Your task to perform on an android device: make emails show in primary in the gmail app Image 0: 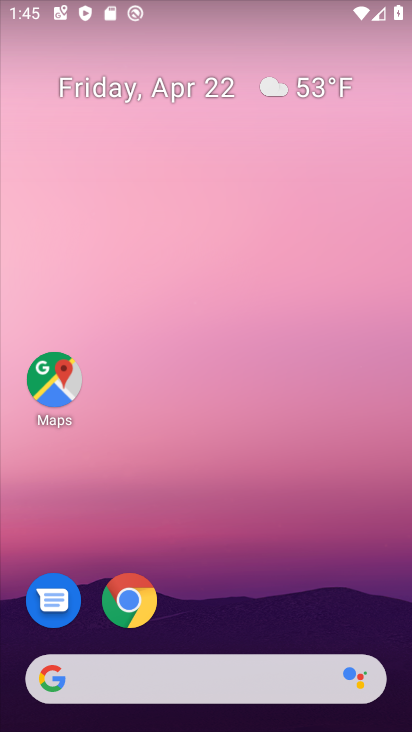
Step 0: drag from (213, 704) to (213, 78)
Your task to perform on an android device: make emails show in primary in the gmail app Image 1: 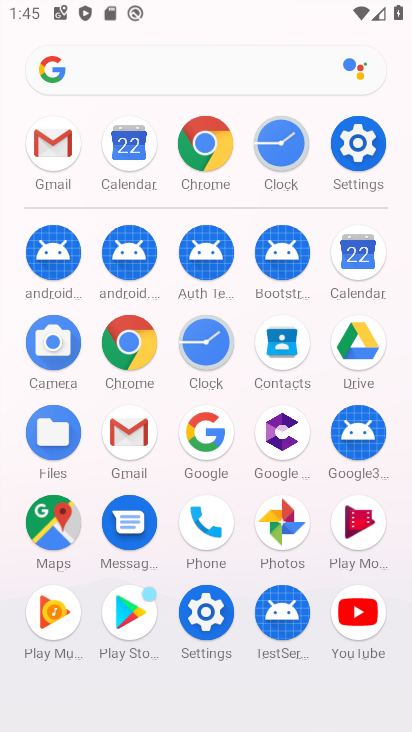
Step 1: click (52, 143)
Your task to perform on an android device: make emails show in primary in the gmail app Image 2: 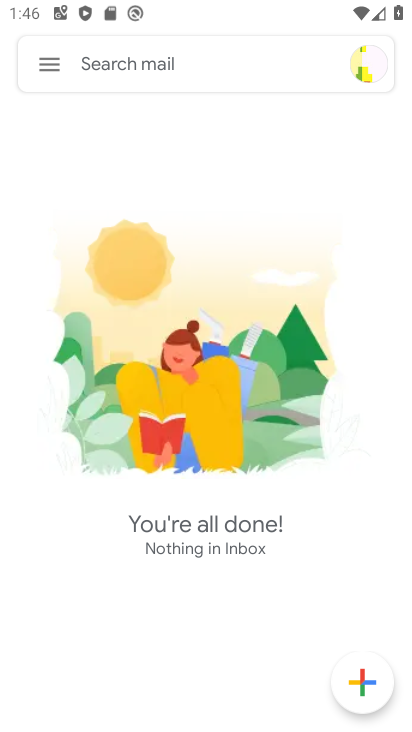
Step 2: click (52, 64)
Your task to perform on an android device: make emails show in primary in the gmail app Image 3: 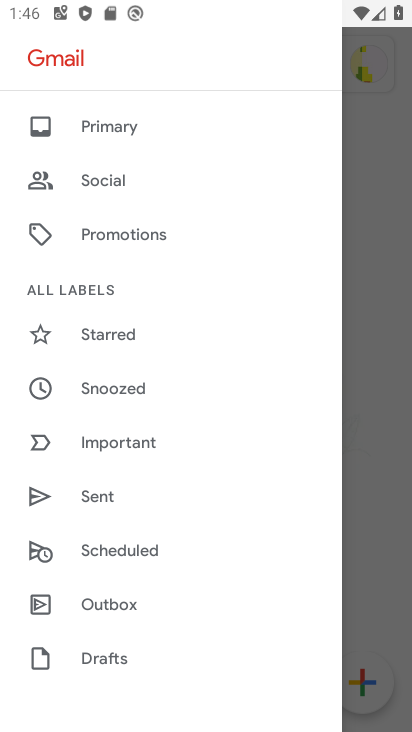
Step 3: drag from (127, 627) to (132, 194)
Your task to perform on an android device: make emails show in primary in the gmail app Image 4: 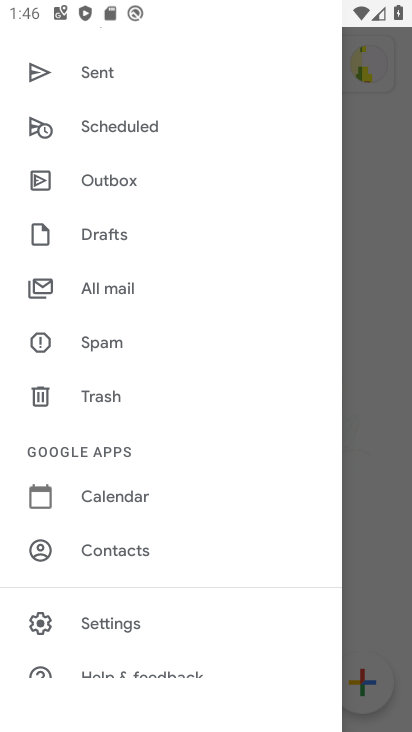
Step 4: click (106, 625)
Your task to perform on an android device: make emails show in primary in the gmail app Image 5: 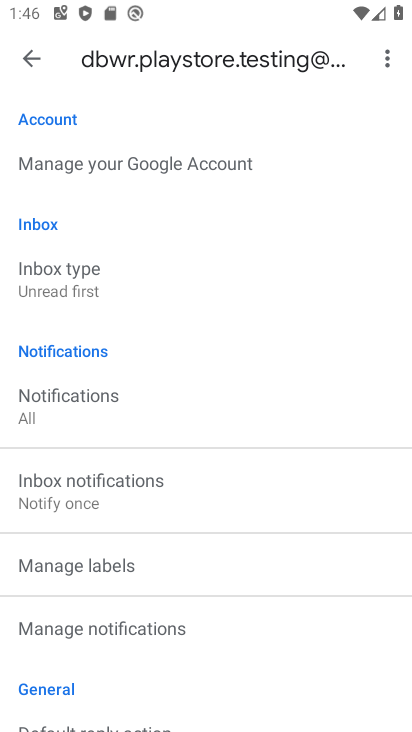
Step 5: drag from (127, 644) to (148, 612)
Your task to perform on an android device: make emails show in primary in the gmail app Image 6: 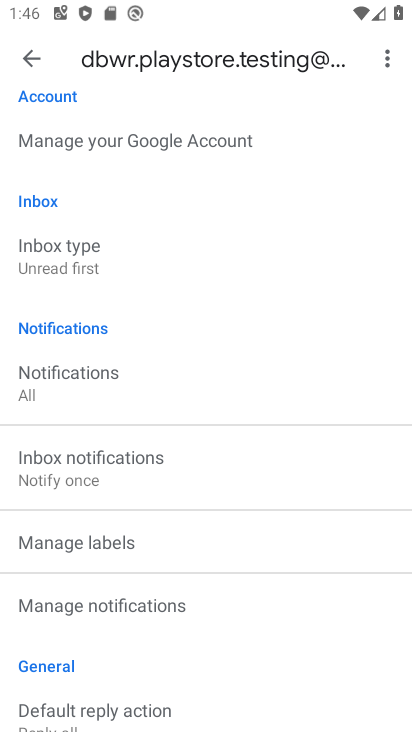
Step 6: click (75, 258)
Your task to perform on an android device: make emails show in primary in the gmail app Image 7: 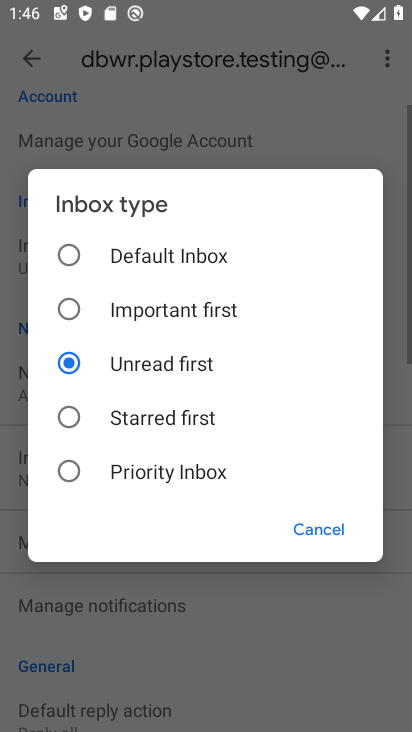
Step 7: click (66, 251)
Your task to perform on an android device: make emails show in primary in the gmail app Image 8: 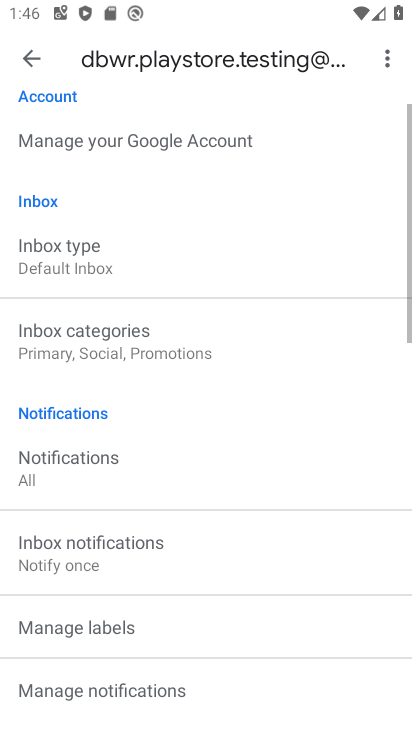
Step 8: click (98, 344)
Your task to perform on an android device: make emails show in primary in the gmail app Image 9: 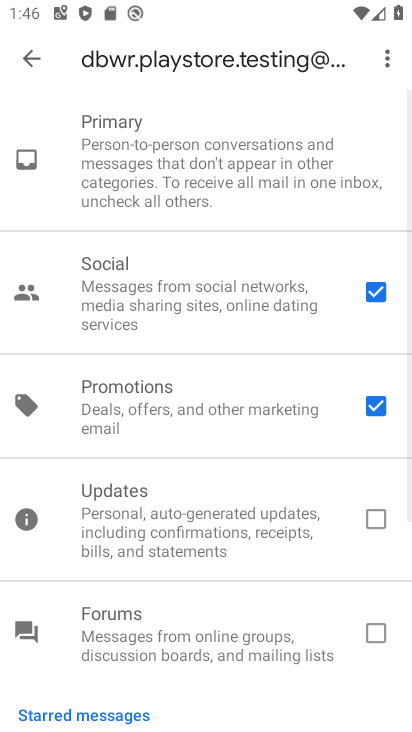
Step 9: click (371, 407)
Your task to perform on an android device: make emails show in primary in the gmail app Image 10: 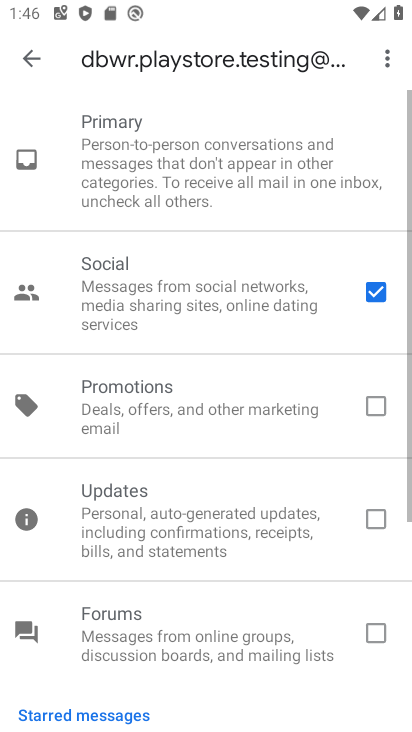
Step 10: click (376, 292)
Your task to perform on an android device: make emails show in primary in the gmail app Image 11: 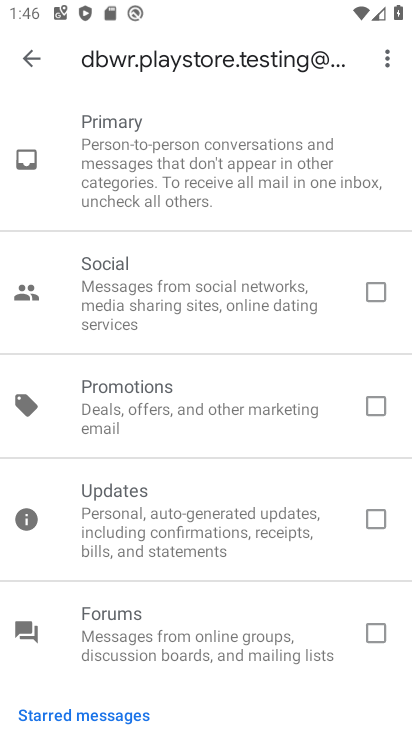
Step 11: click (29, 57)
Your task to perform on an android device: make emails show in primary in the gmail app Image 12: 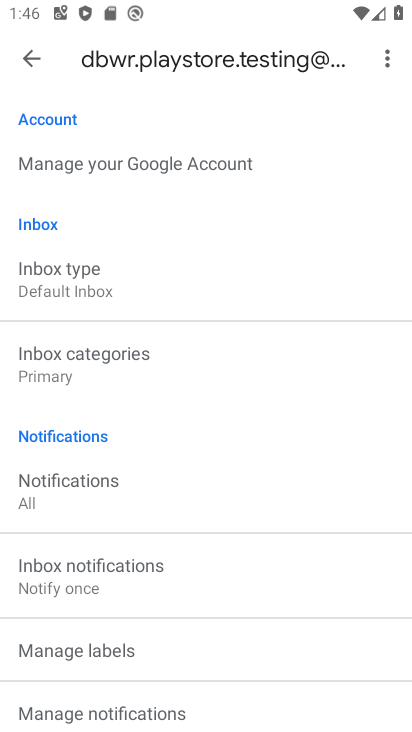
Step 12: task complete